Your task to perform on an android device: Open CNN.com Image 0: 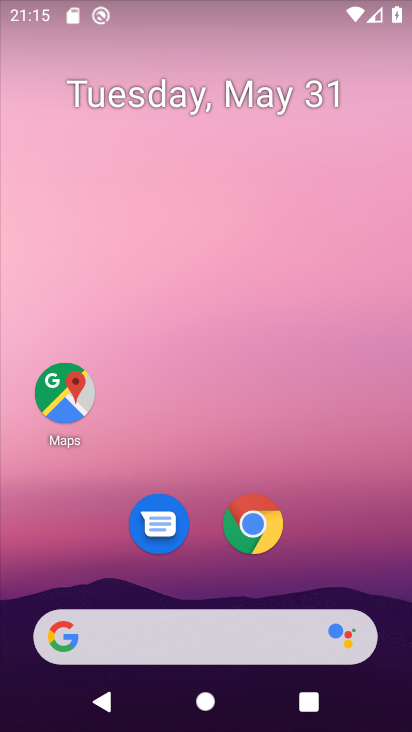
Step 0: click (243, 639)
Your task to perform on an android device: Open CNN.com Image 1: 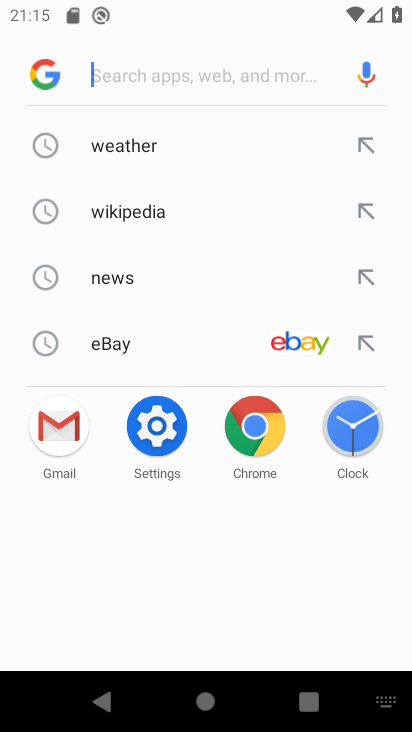
Step 1: type "cnn.com"
Your task to perform on an android device: Open CNN.com Image 2: 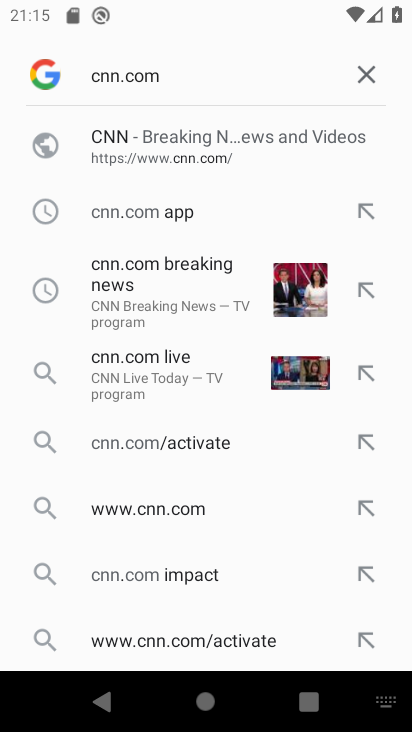
Step 2: click (163, 151)
Your task to perform on an android device: Open CNN.com Image 3: 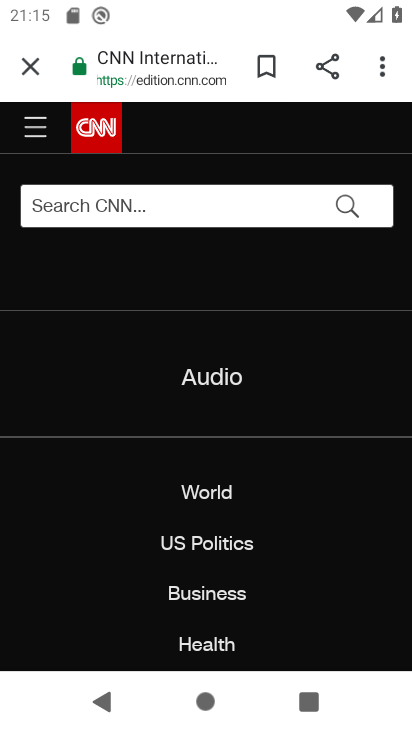
Step 3: task complete